Your task to perform on an android device: snooze an email in the gmail app Image 0: 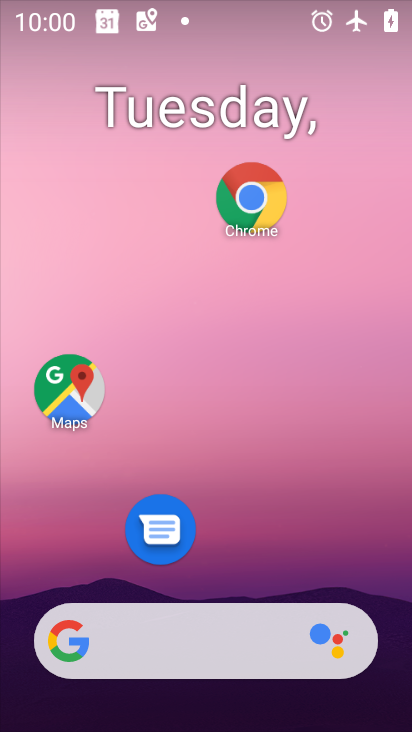
Step 0: drag from (363, 527) to (318, 74)
Your task to perform on an android device: snooze an email in the gmail app Image 1: 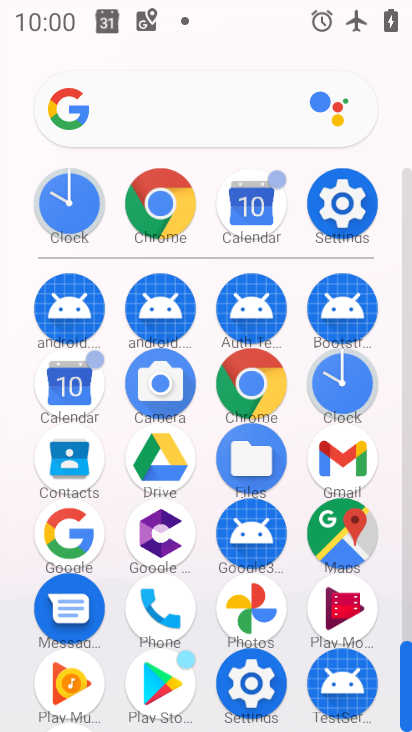
Step 1: click (339, 482)
Your task to perform on an android device: snooze an email in the gmail app Image 2: 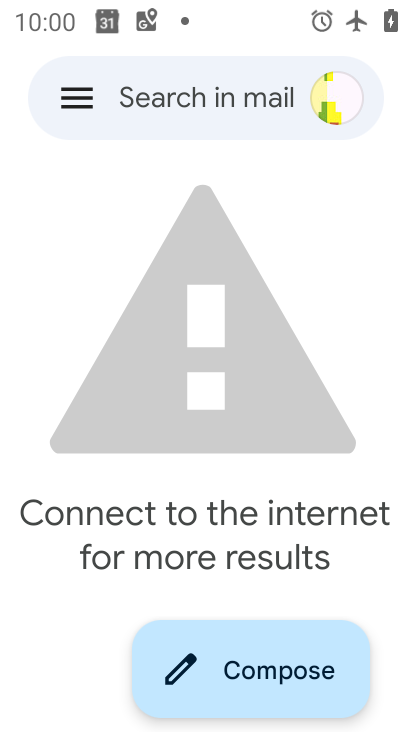
Step 2: click (87, 101)
Your task to perform on an android device: snooze an email in the gmail app Image 3: 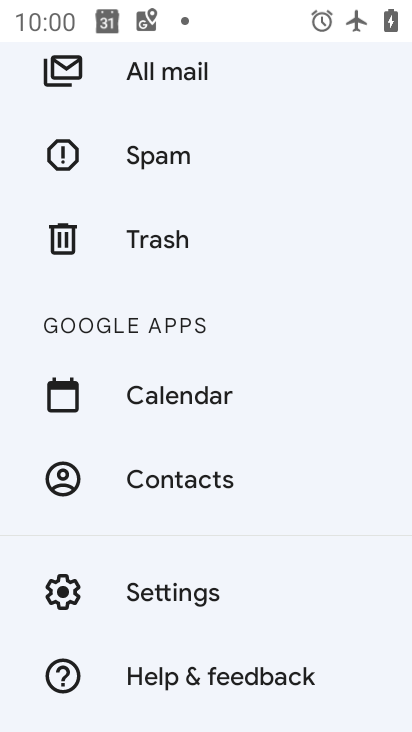
Step 3: click (222, 82)
Your task to perform on an android device: snooze an email in the gmail app Image 4: 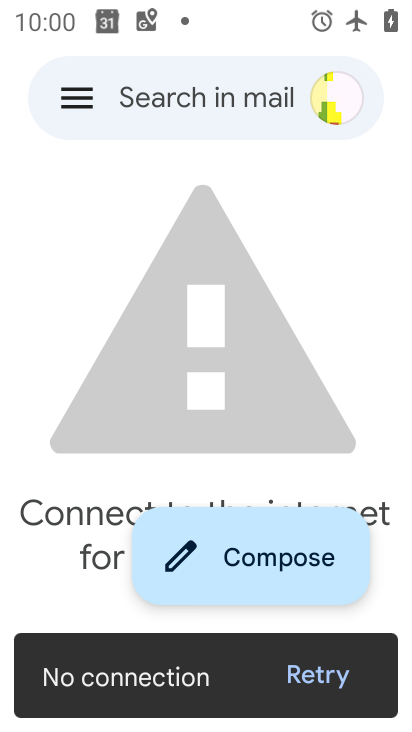
Step 4: task complete